Your task to perform on an android device: Open the map Image 0: 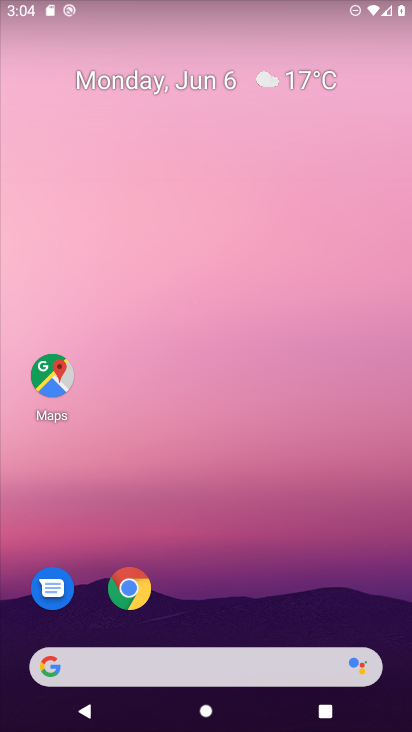
Step 0: click (45, 388)
Your task to perform on an android device: Open the map Image 1: 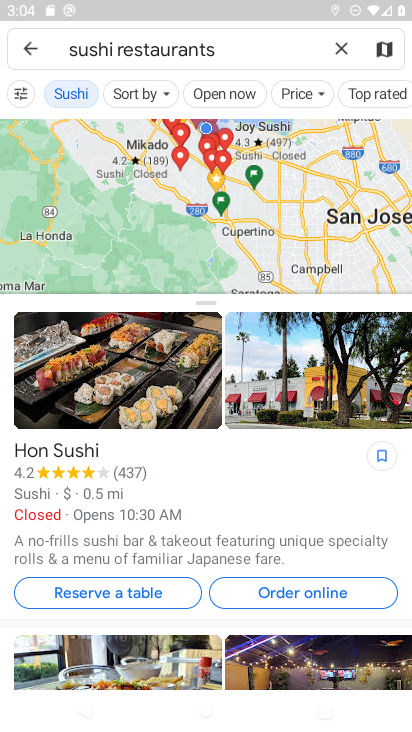
Step 1: task complete